Your task to perform on an android device: turn on wifi Image 0: 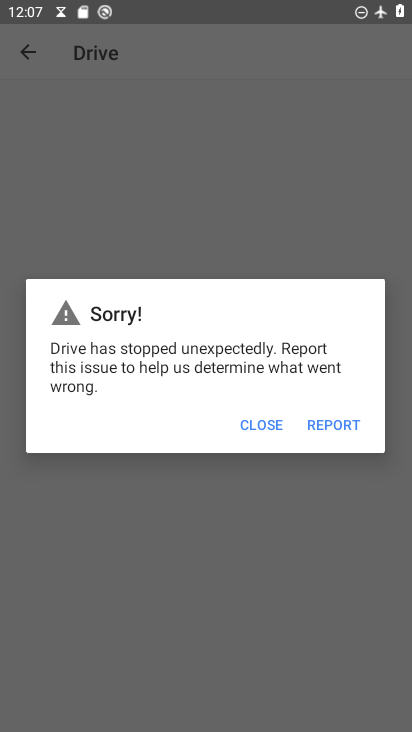
Step 0: press home button
Your task to perform on an android device: turn on wifi Image 1: 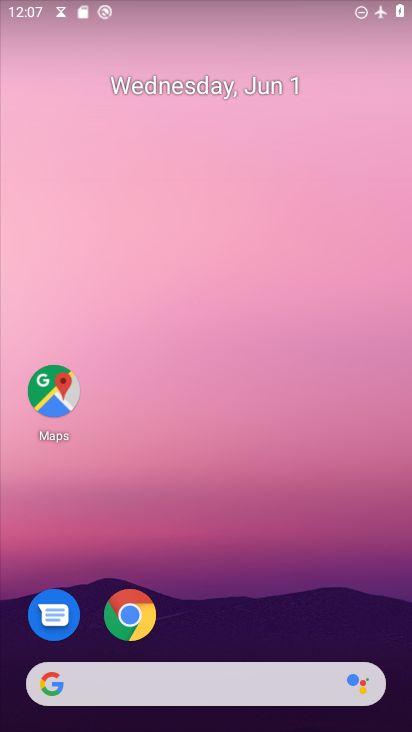
Step 1: drag from (219, 667) to (239, 50)
Your task to perform on an android device: turn on wifi Image 2: 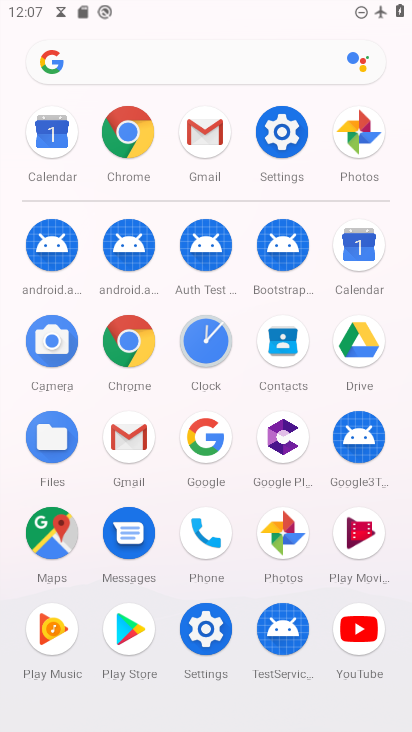
Step 2: click (297, 128)
Your task to perform on an android device: turn on wifi Image 3: 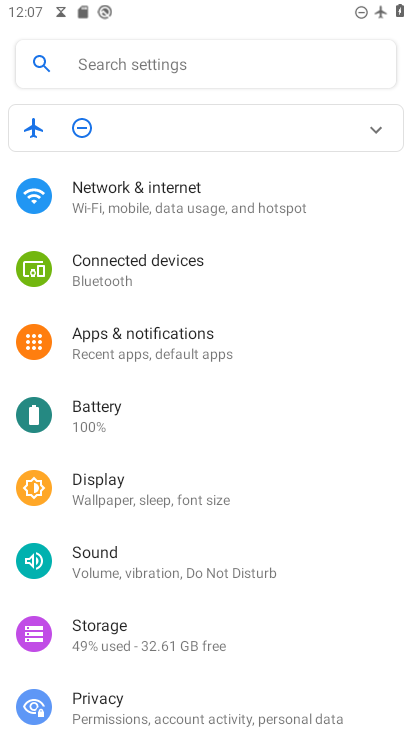
Step 3: click (261, 203)
Your task to perform on an android device: turn on wifi Image 4: 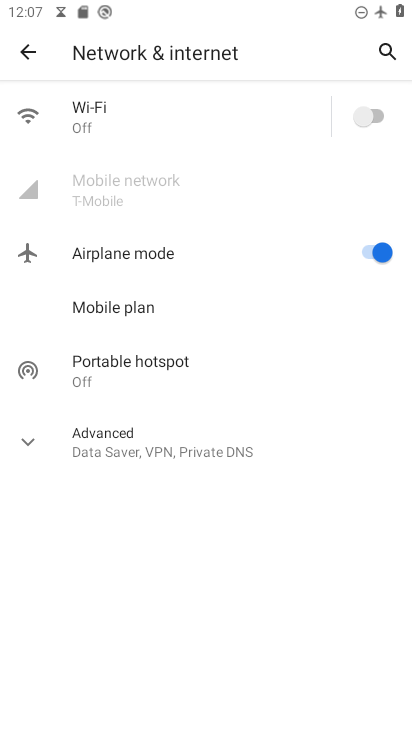
Step 4: click (366, 115)
Your task to perform on an android device: turn on wifi Image 5: 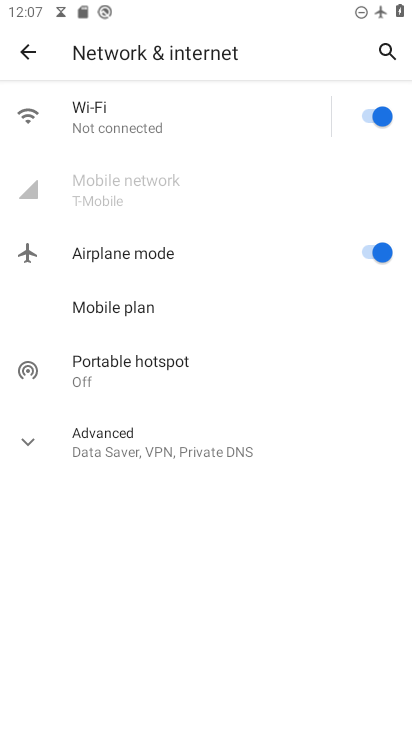
Step 5: task complete